Your task to perform on an android device: turn on location history Image 0: 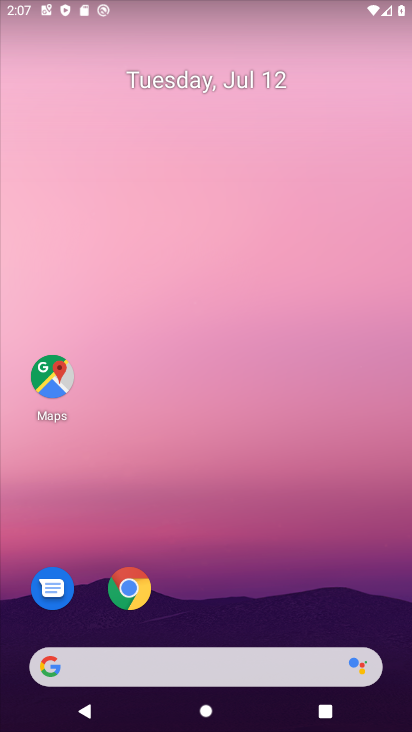
Step 0: drag from (185, 653) to (172, 12)
Your task to perform on an android device: turn on location history Image 1: 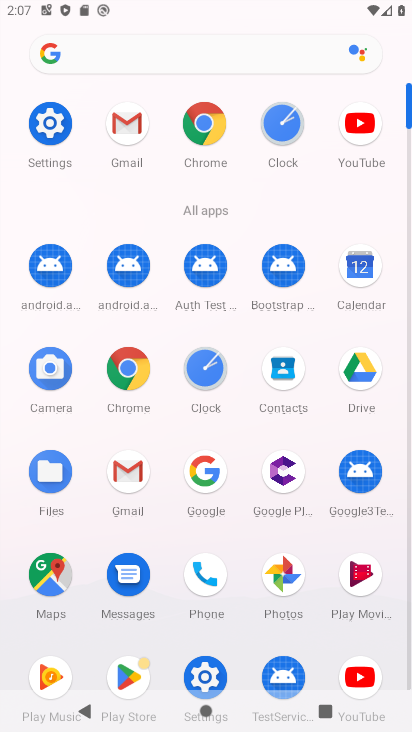
Step 1: click (31, 126)
Your task to perform on an android device: turn on location history Image 2: 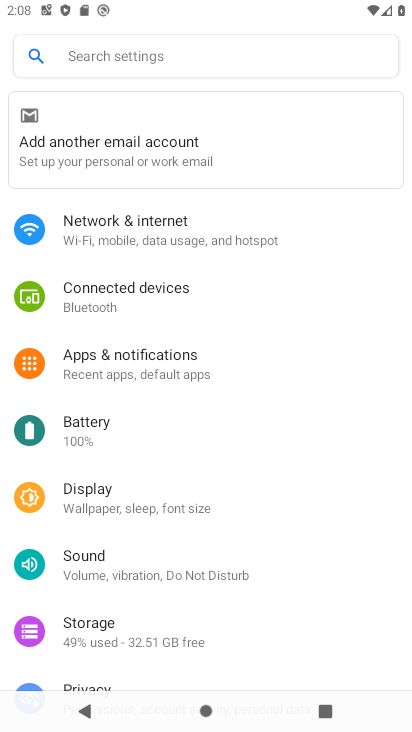
Step 2: drag from (128, 597) to (96, 87)
Your task to perform on an android device: turn on location history Image 3: 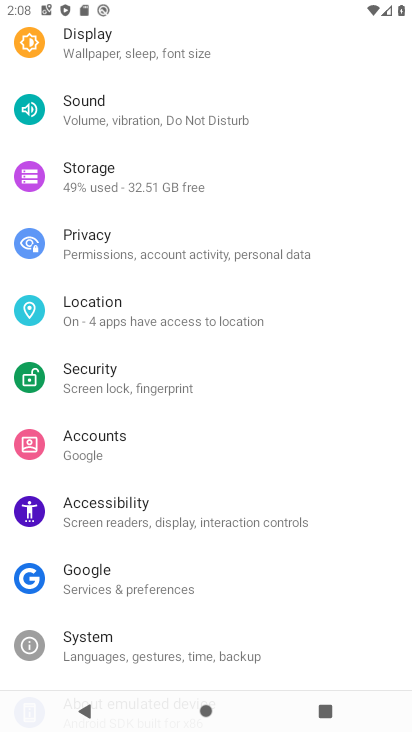
Step 3: click (128, 313)
Your task to perform on an android device: turn on location history Image 4: 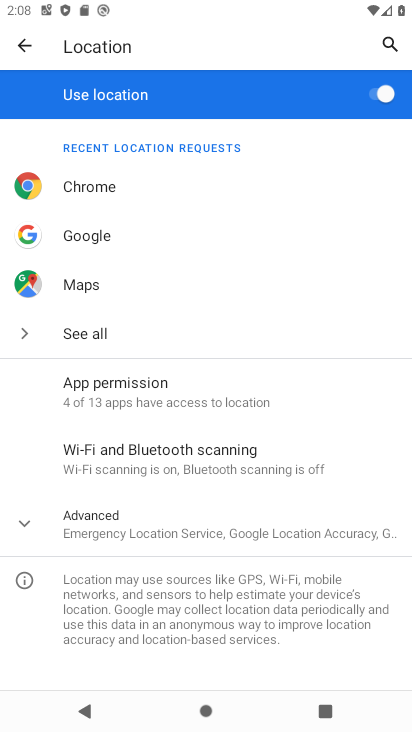
Step 4: click (115, 514)
Your task to perform on an android device: turn on location history Image 5: 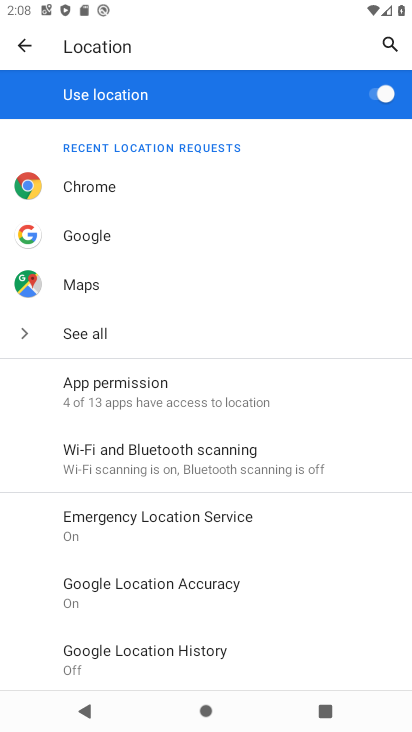
Step 5: click (182, 650)
Your task to perform on an android device: turn on location history Image 6: 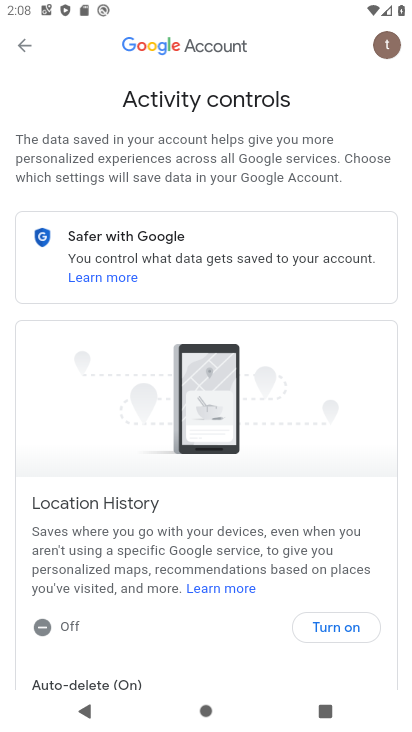
Step 6: task complete